Your task to perform on an android device: What's US dollar exchange rate against the Chinese Yuan? Image 0: 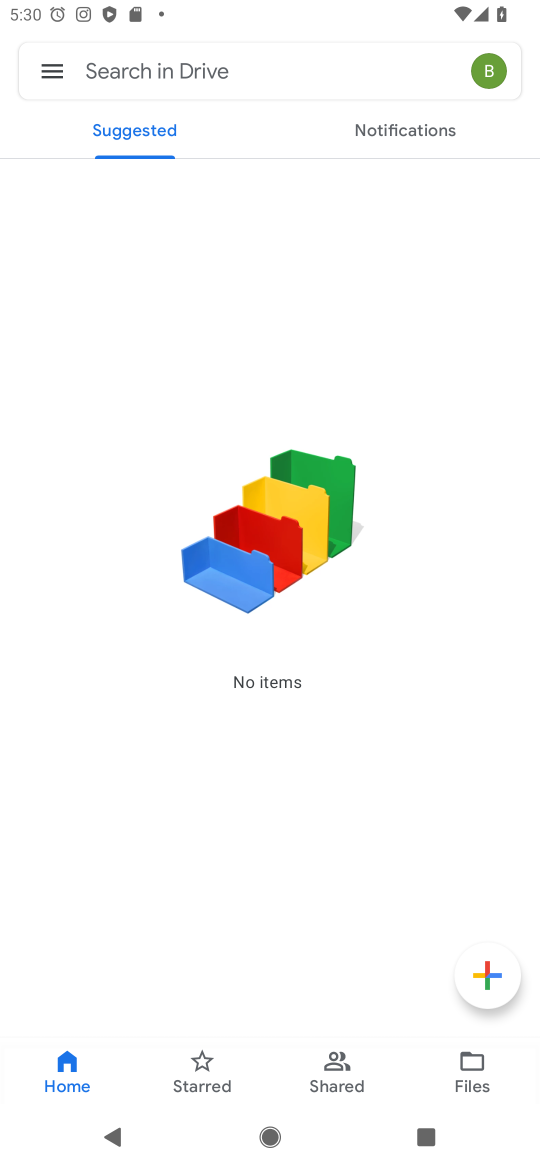
Step 0: press home button
Your task to perform on an android device: What's US dollar exchange rate against the Chinese Yuan? Image 1: 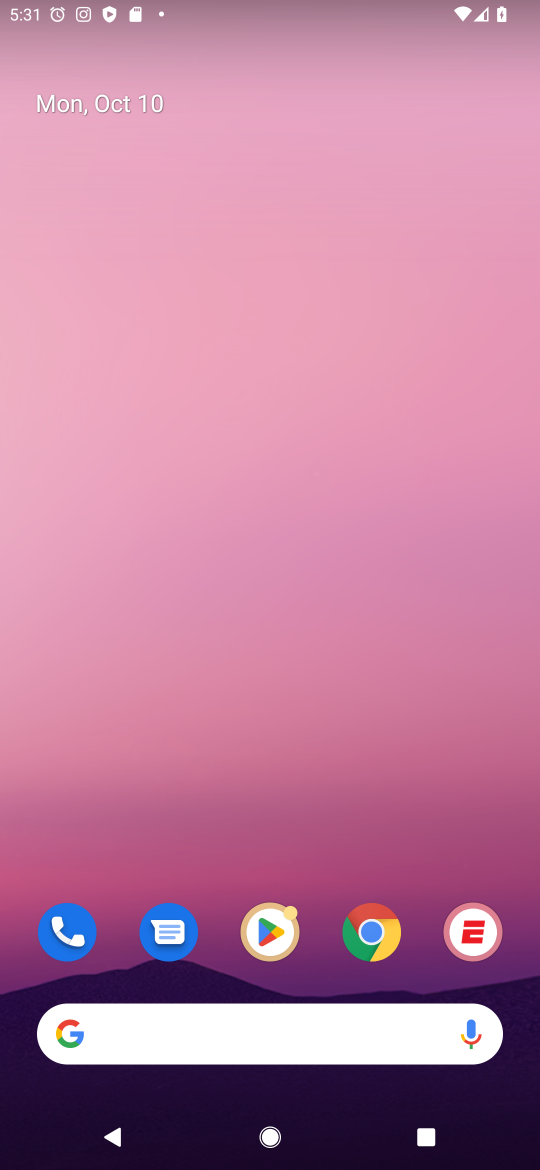
Step 1: click (339, 1032)
Your task to perform on an android device: What's US dollar exchange rate against the Chinese Yuan? Image 2: 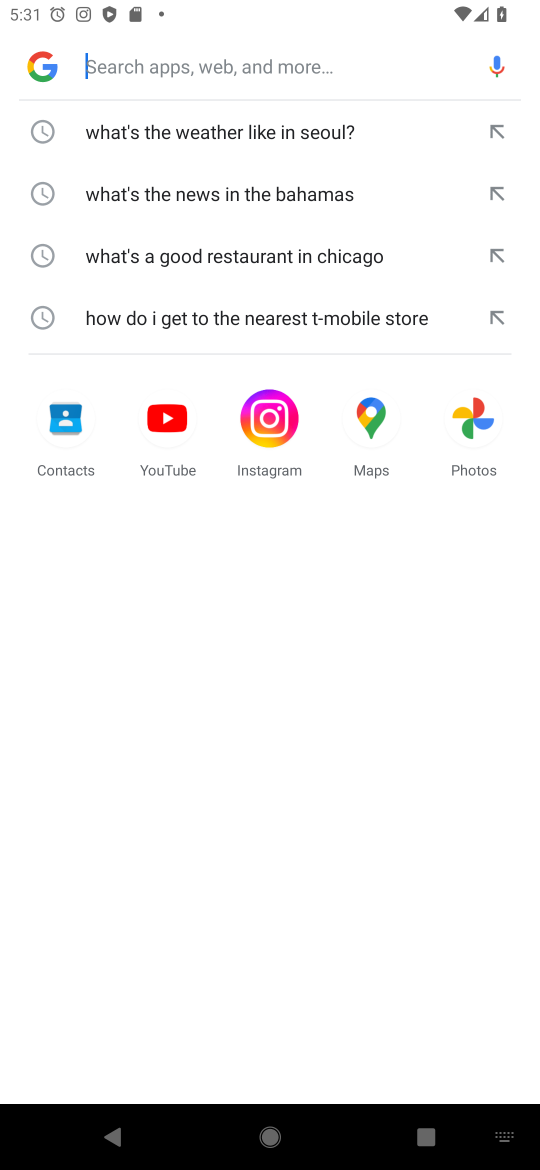
Step 2: type "What's US dollar exchange rate against the Chinese Yuan"
Your task to perform on an android device: What's US dollar exchange rate against the Chinese Yuan? Image 3: 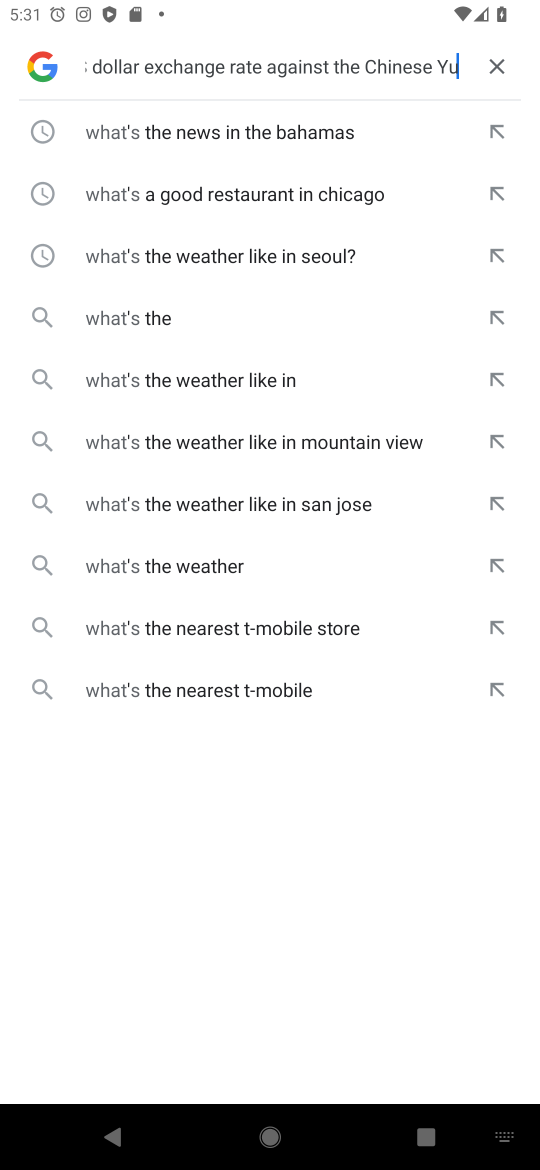
Step 3: press enter
Your task to perform on an android device: What's US dollar exchange rate against the Chinese Yuan? Image 4: 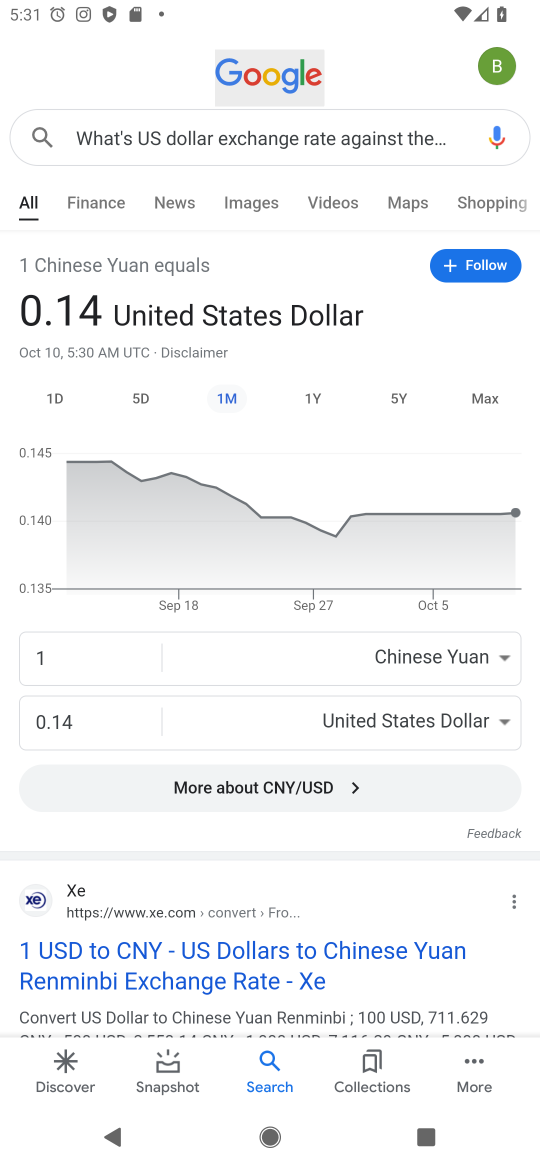
Step 4: task complete